Your task to perform on an android device: Open calendar and show me the second week of next month Image 0: 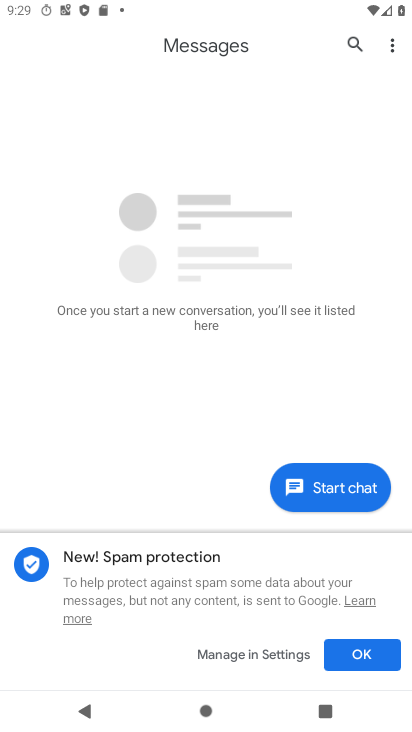
Step 0: press home button
Your task to perform on an android device: Open calendar and show me the second week of next month Image 1: 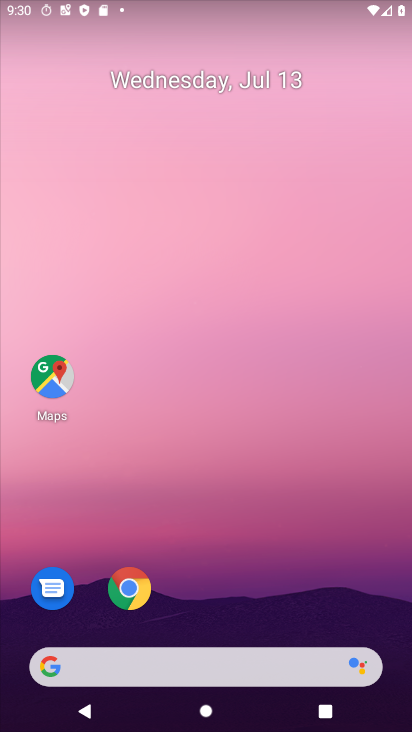
Step 1: drag from (215, 617) to (331, 12)
Your task to perform on an android device: Open calendar and show me the second week of next month Image 2: 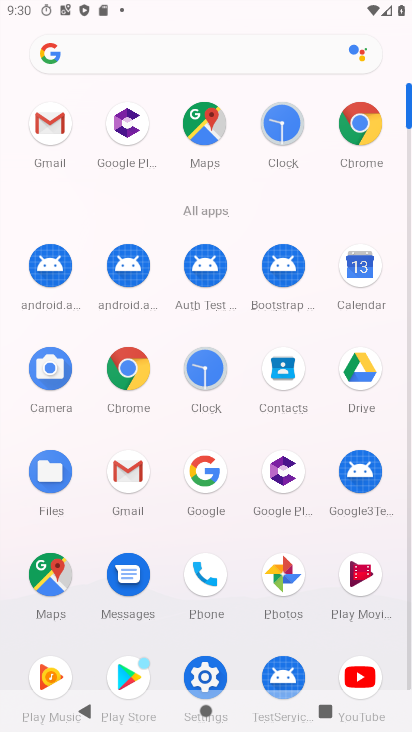
Step 2: click (353, 268)
Your task to perform on an android device: Open calendar and show me the second week of next month Image 3: 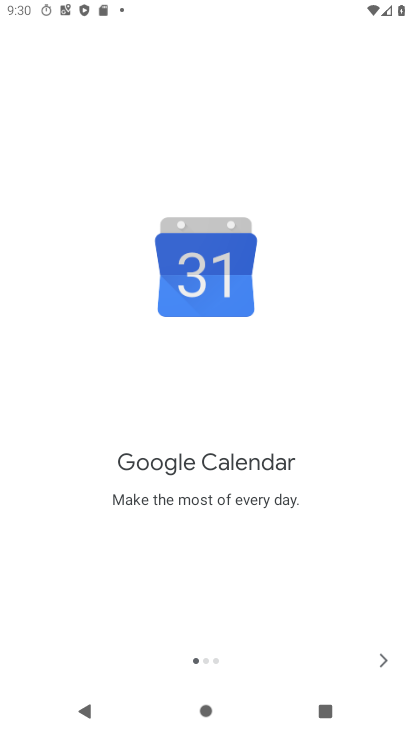
Step 3: click (389, 649)
Your task to perform on an android device: Open calendar and show me the second week of next month Image 4: 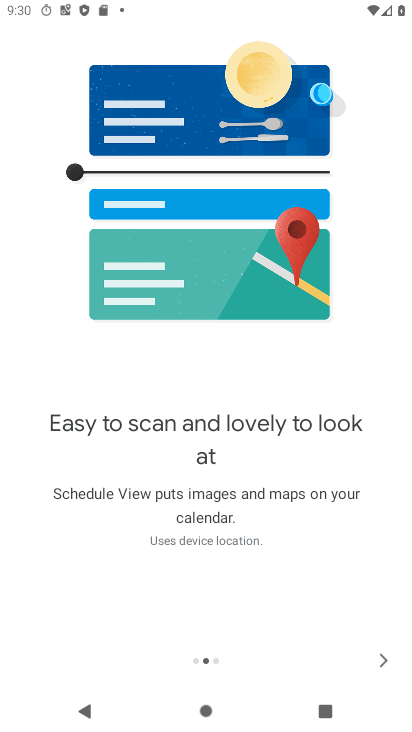
Step 4: click (380, 668)
Your task to perform on an android device: Open calendar and show me the second week of next month Image 5: 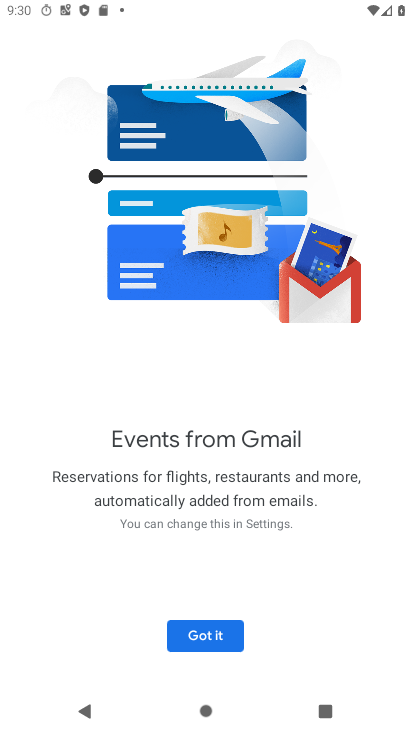
Step 5: click (201, 644)
Your task to perform on an android device: Open calendar and show me the second week of next month Image 6: 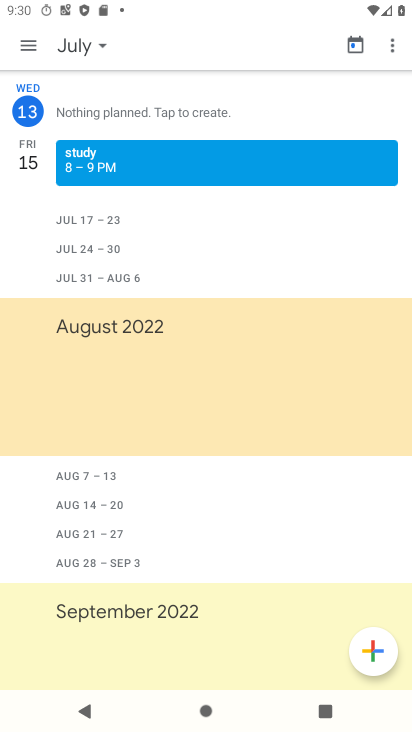
Step 6: click (93, 38)
Your task to perform on an android device: Open calendar and show me the second week of next month Image 7: 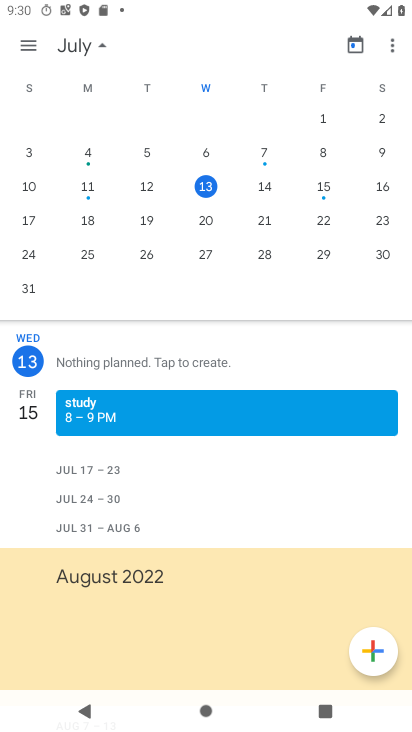
Step 7: drag from (385, 221) to (19, 192)
Your task to perform on an android device: Open calendar and show me the second week of next month Image 8: 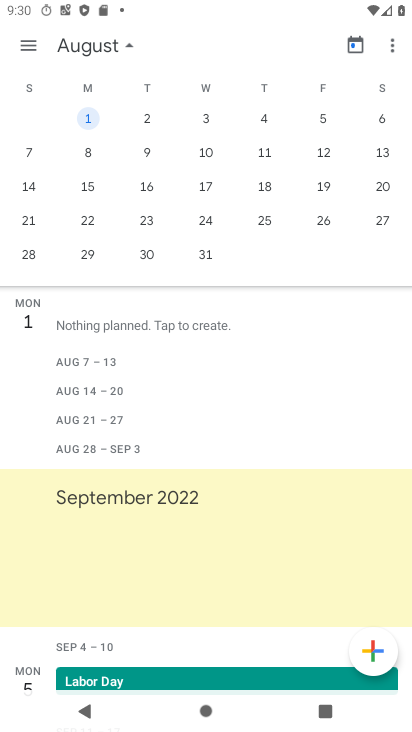
Step 8: click (31, 159)
Your task to perform on an android device: Open calendar and show me the second week of next month Image 9: 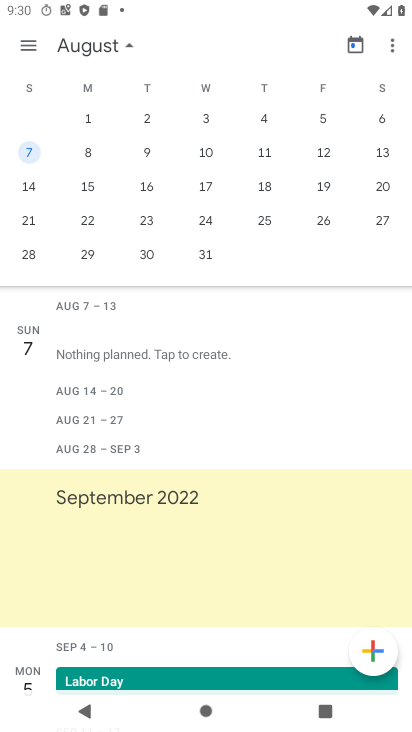
Step 9: task complete